Your task to perform on an android device: Check the news Image 0: 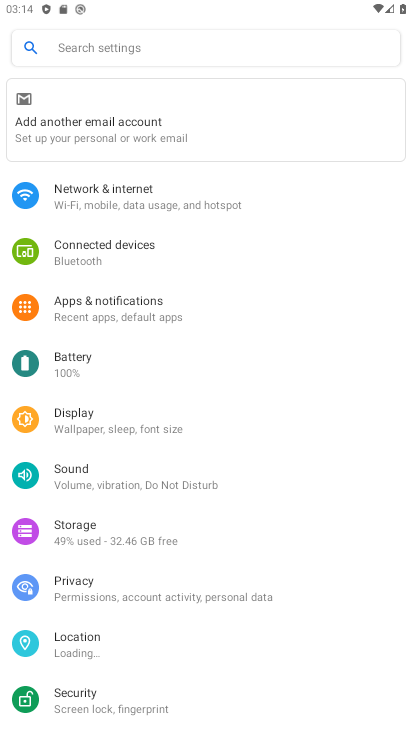
Step 0: press home button
Your task to perform on an android device: Check the news Image 1: 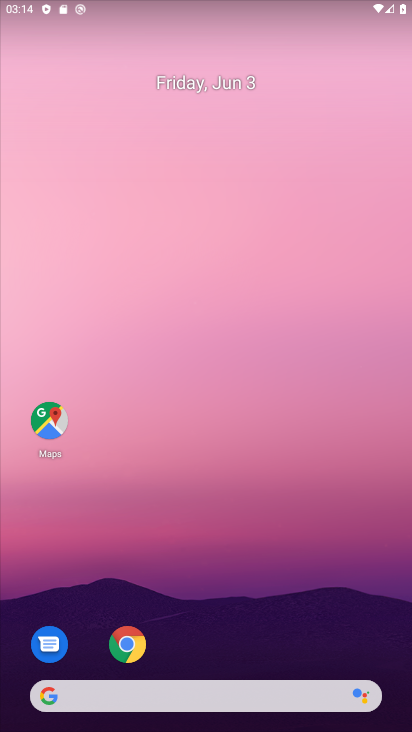
Step 1: click (134, 648)
Your task to perform on an android device: Check the news Image 2: 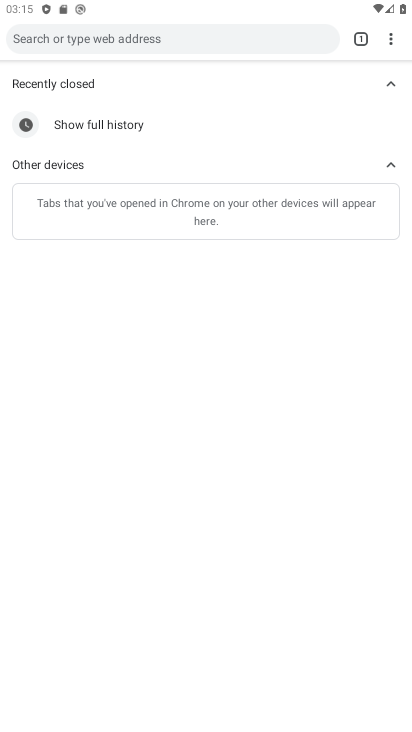
Step 2: click (183, 43)
Your task to perform on an android device: Check the news Image 3: 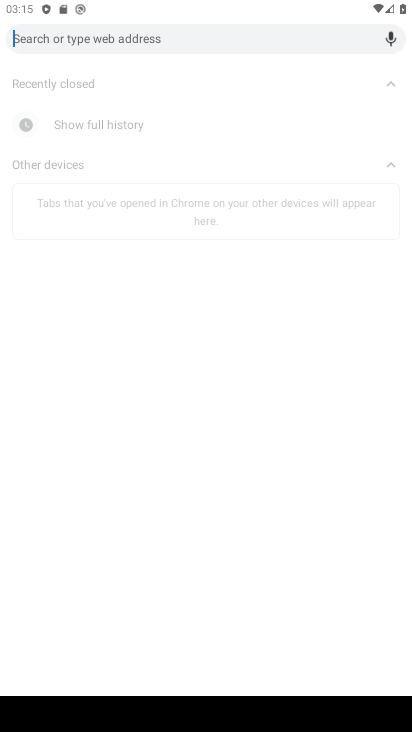
Step 3: type "news"
Your task to perform on an android device: Check the news Image 4: 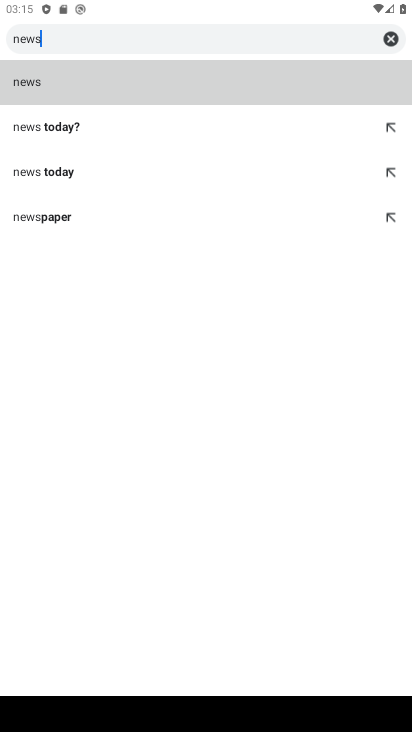
Step 4: click (372, 72)
Your task to perform on an android device: Check the news Image 5: 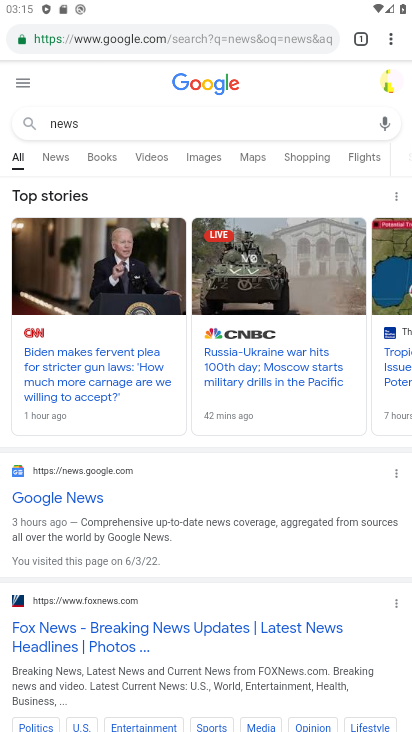
Step 5: task complete